Your task to perform on an android device: turn notification dots off Image 0: 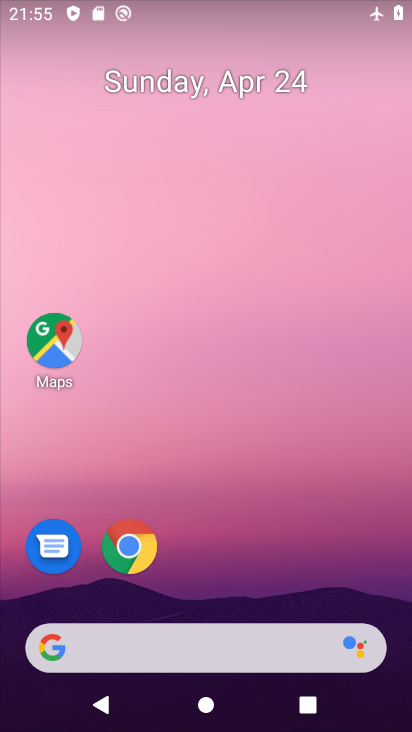
Step 0: click (302, 268)
Your task to perform on an android device: turn notification dots off Image 1: 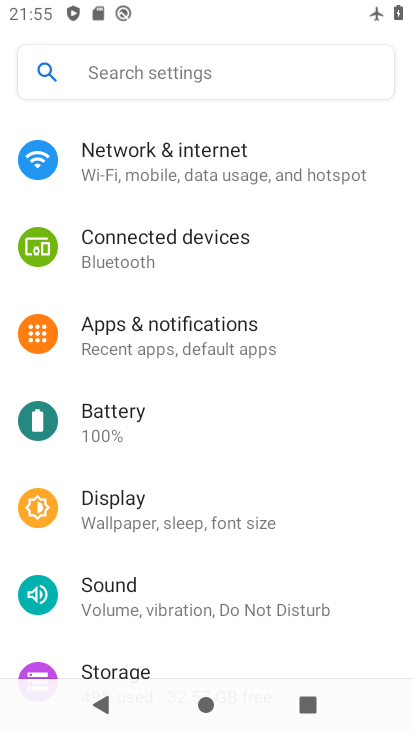
Step 1: press home button
Your task to perform on an android device: turn notification dots off Image 2: 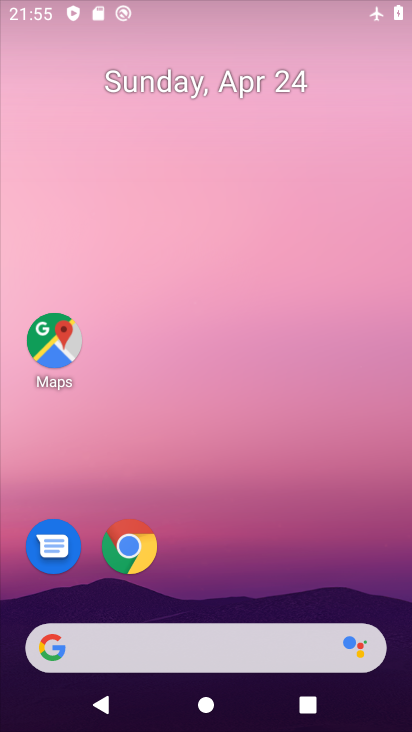
Step 2: drag from (191, 519) to (268, 196)
Your task to perform on an android device: turn notification dots off Image 3: 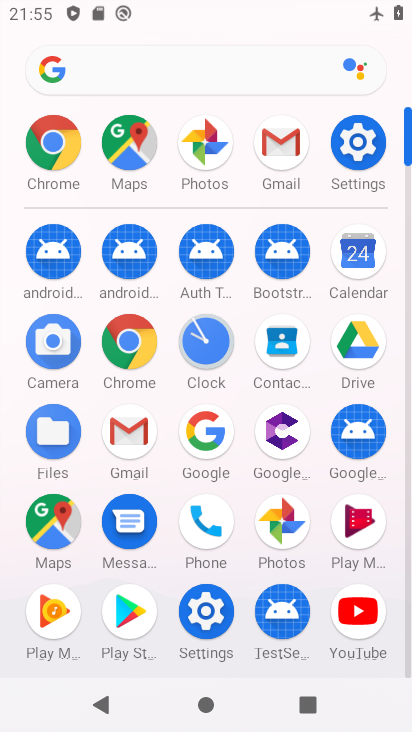
Step 3: click (353, 141)
Your task to perform on an android device: turn notification dots off Image 4: 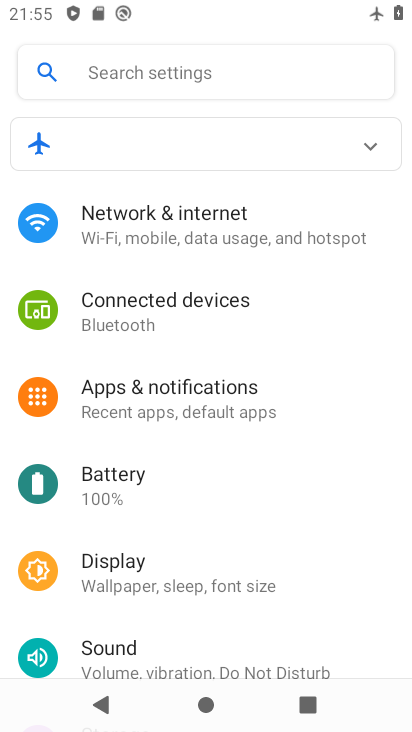
Step 4: click (203, 60)
Your task to perform on an android device: turn notification dots off Image 5: 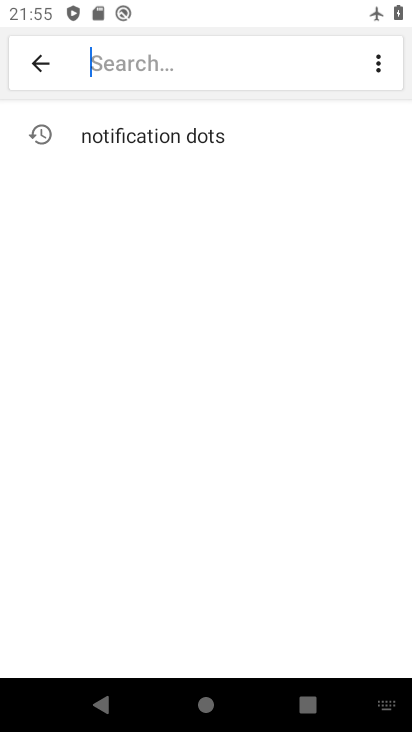
Step 5: type "notification dots "
Your task to perform on an android device: turn notification dots off Image 6: 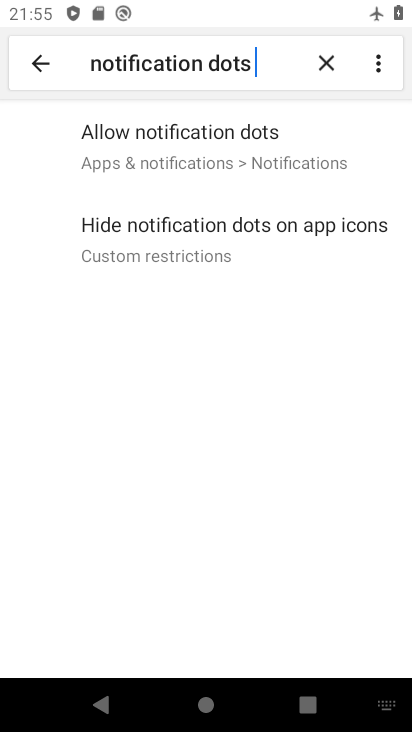
Step 6: click (239, 148)
Your task to perform on an android device: turn notification dots off Image 7: 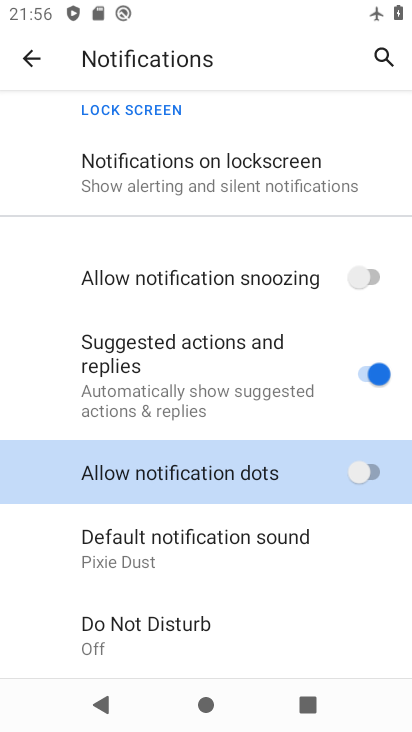
Step 7: task complete